Your task to perform on an android device: turn off airplane mode Image 0: 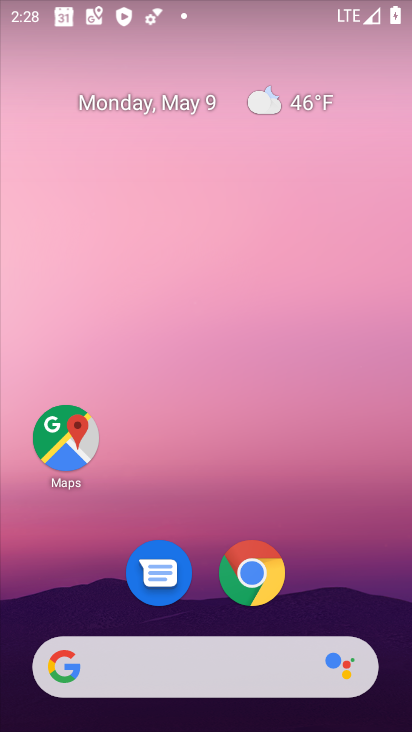
Step 0: drag from (219, 526) to (245, 123)
Your task to perform on an android device: turn off airplane mode Image 1: 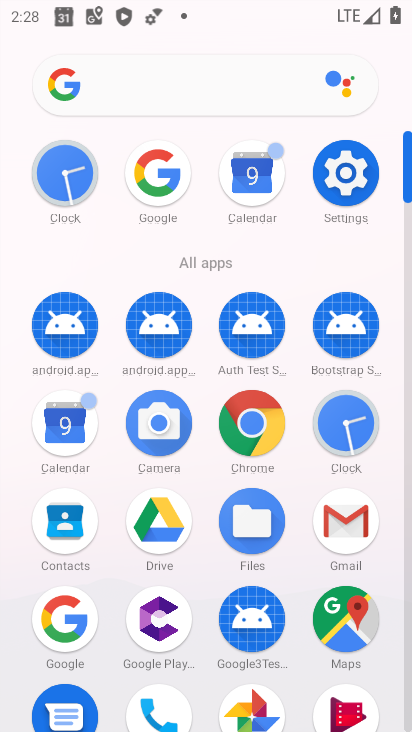
Step 1: click (342, 177)
Your task to perform on an android device: turn off airplane mode Image 2: 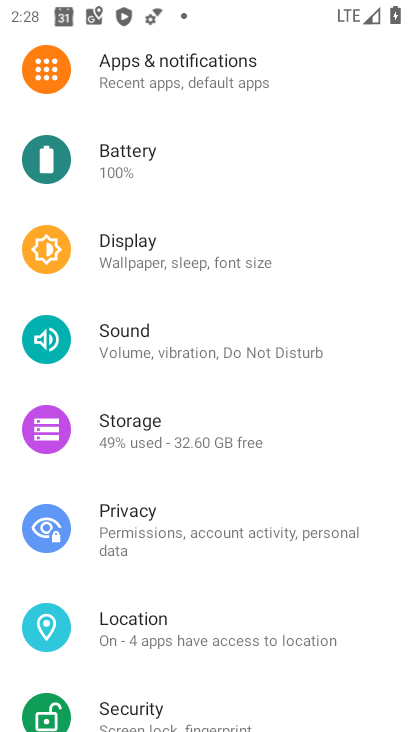
Step 2: drag from (174, 96) to (282, 707)
Your task to perform on an android device: turn off airplane mode Image 3: 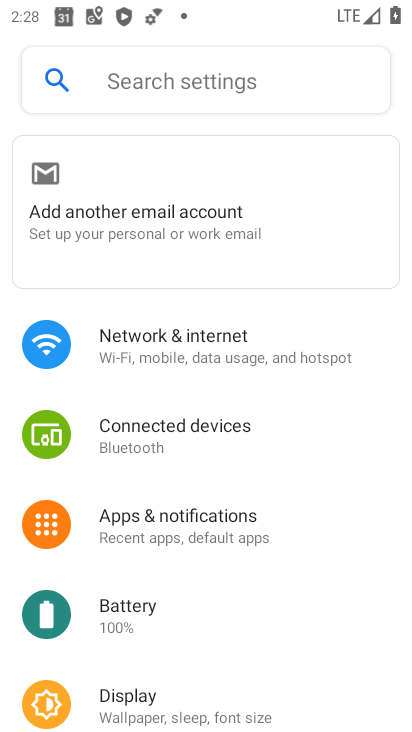
Step 3: click (164, 342)
Your task to perform on an android device: turn off airplane mode Image 4: 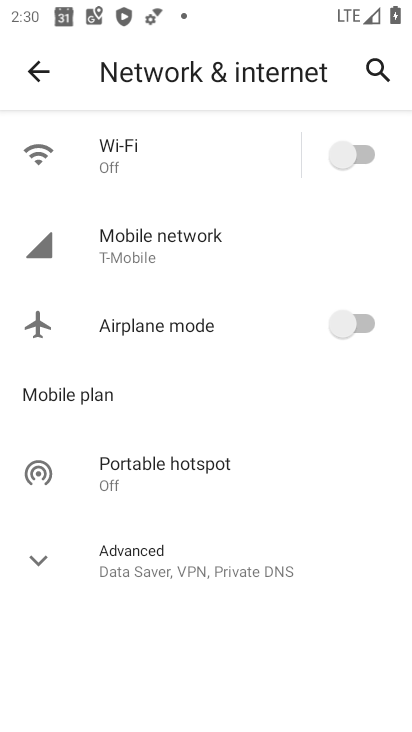
Step 4: task complete